Your task to perform on an android device: manage bookmarks in the chrome app Image 0: 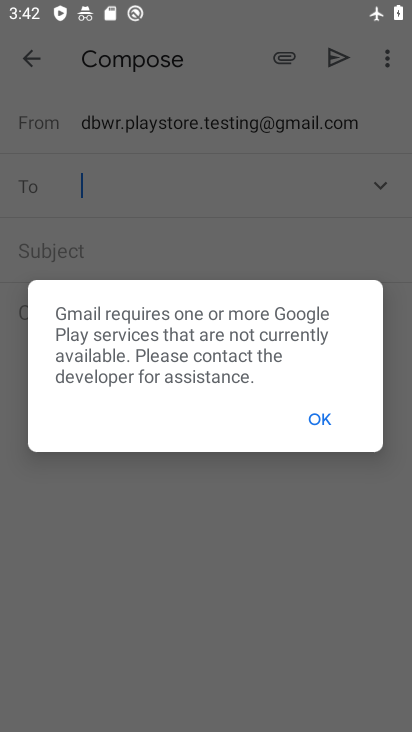
Step 0: click (328, 431)
Your task to perform on an android device: manage bookmarks in the chrome app Image 1: 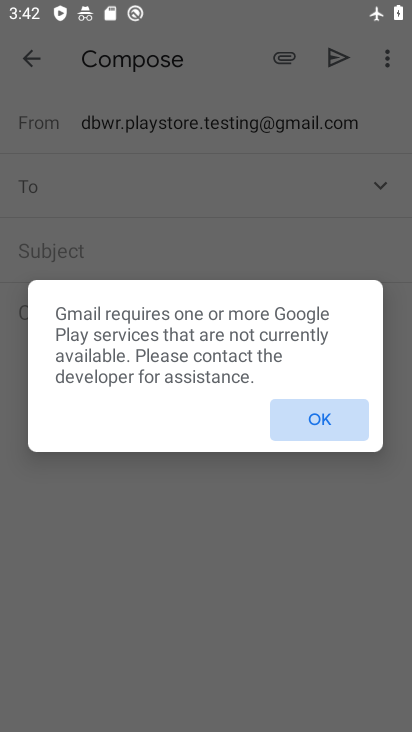
Step 1: click (315, 419)
Your task to perform on an android device: manage bookmarks in the chrome app Image 2: 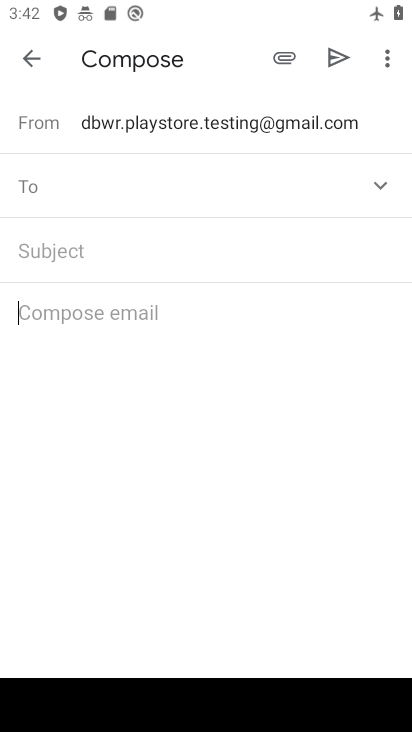
Step 2: click (30, 50)
Your task to perform on an android device: manage bookmarks in the chrome app Image 3: 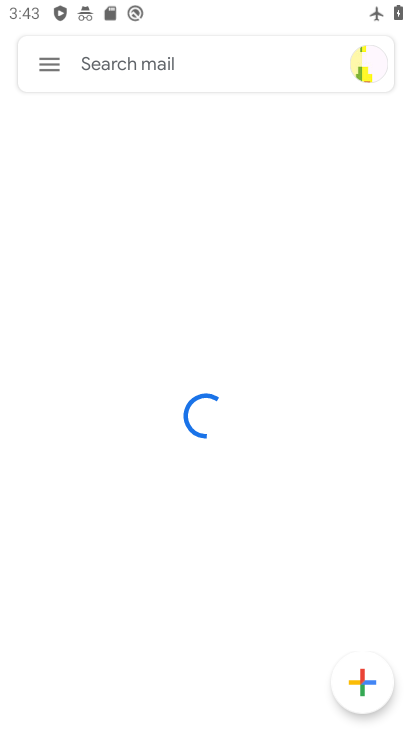
Step 3: press home button
Your task to perform on an android device: manage bookmarks in the chrome app Image 4: 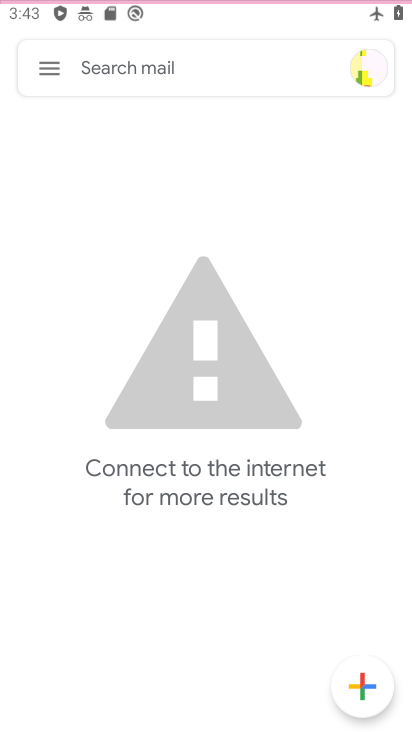
Step 4: press home button
Your task to perform on an android device: manage bookmarks in the chrome app Image 5: 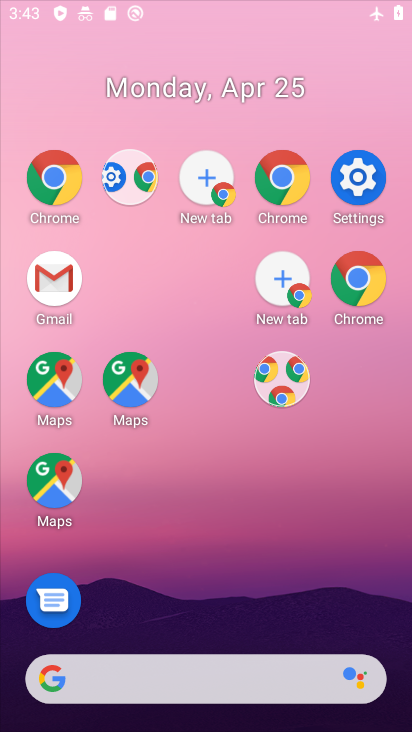
Step 5: press home button
Your task to perform on an android device: manage bookmarks in the chrome app Image 6: 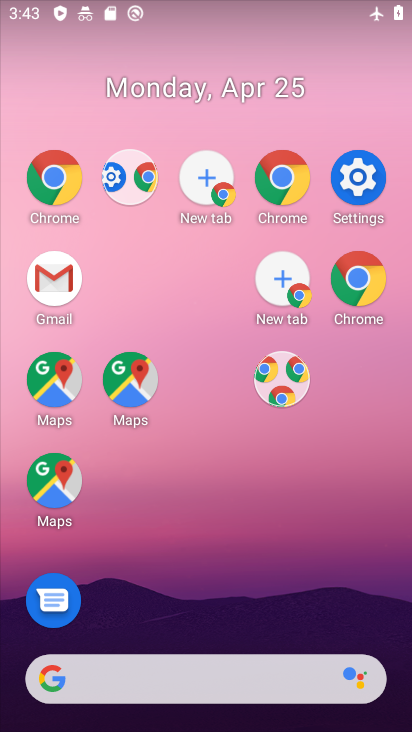
Step 6: drag from (267, 587) to (171, 115)
Your task to perform on an android device: manage bookmarks in the chrome app Image 7: 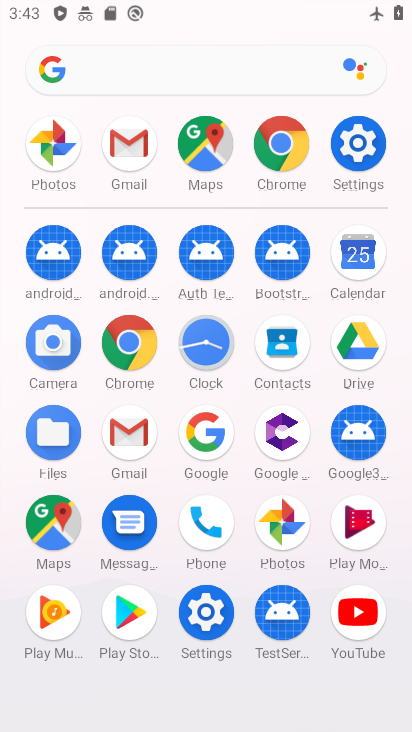
Step 7: click (280, 144)
Your task to perform on an android device: manage bookmarks in the chrome app Image 8: 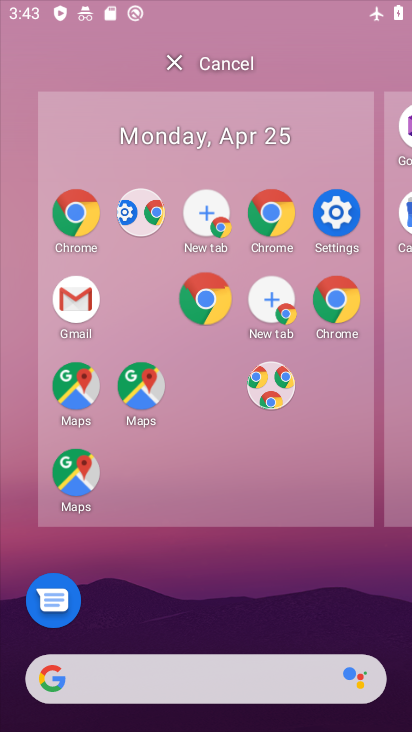
Step 8: click (270, 170)
Your task to perform on an android device: manage bookmarks in the chrome app Image 9: 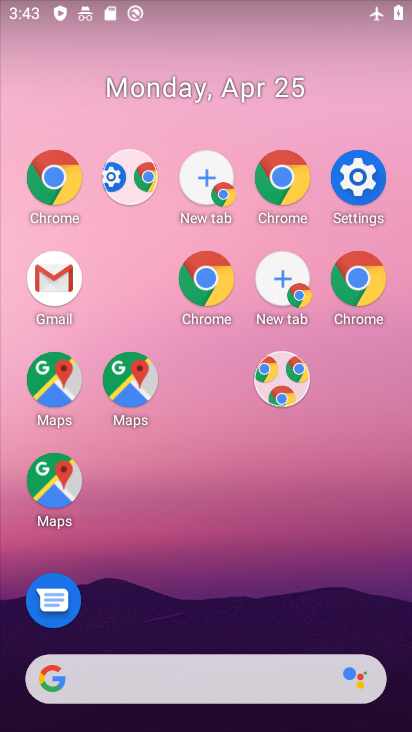
Step 9: drag from (278, 658) to (208, 203)
Your task to perform on an android device: manage bookmarks in the chrome app Image 10: 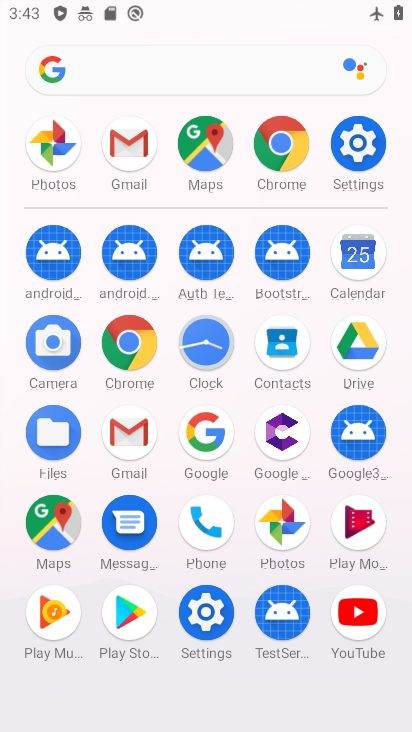
Step 10: click (284, 133)
Your task to perform on an android device: manage bookmarks in the chrome app Image 11: 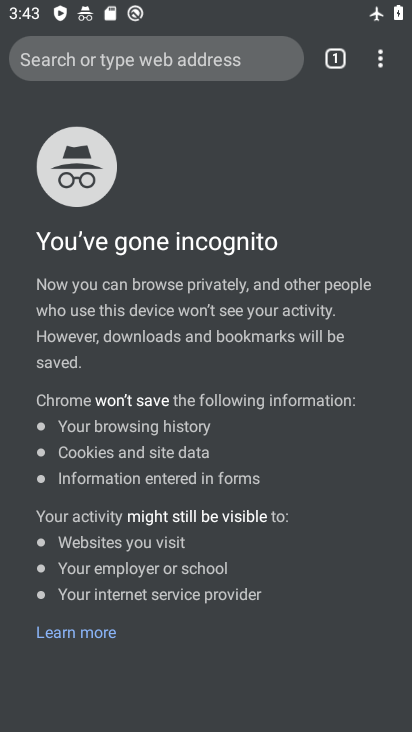
Step 11: drag from (376, 62) to (162, 301)
Your task to perform on an android device: manage bookmarks in the chrome app Image 12: 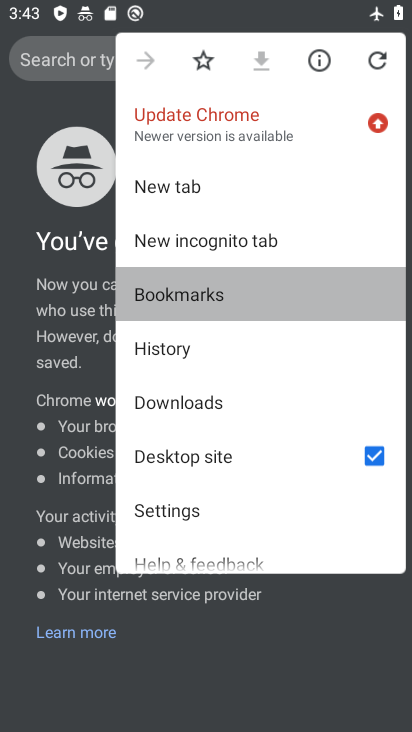
Step 12: click (147, 286)
Your task to perform on an android device: manage bookmarks in the chrome app Image 13: 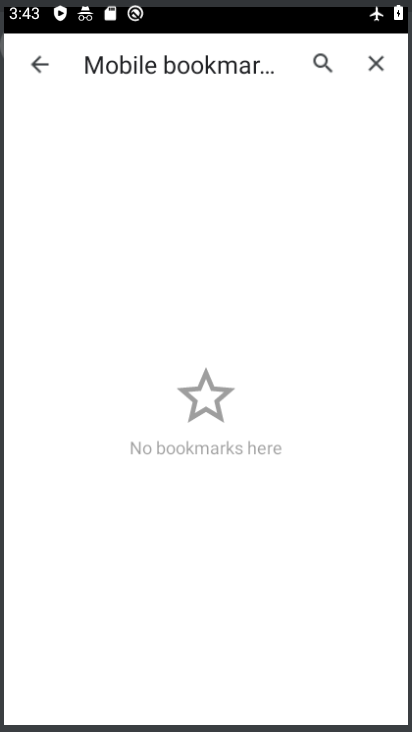
Step 13: click (148, 288)
Your task to perform on an android device: manage bookmarks in the chrome app Image 14: 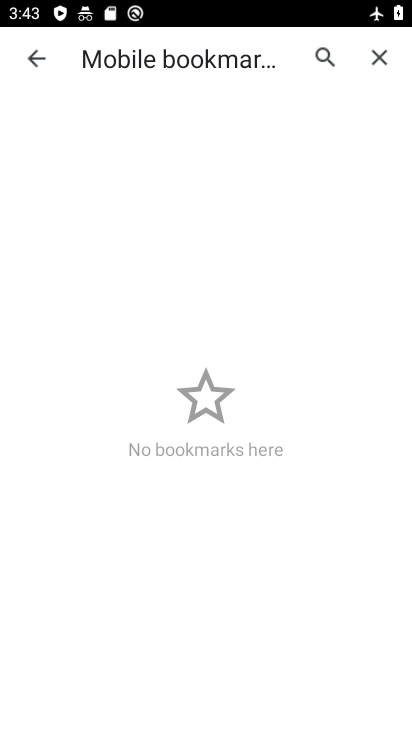
Step 14: task complete